Your task to perform on an android device: Go to Maps Image 0: 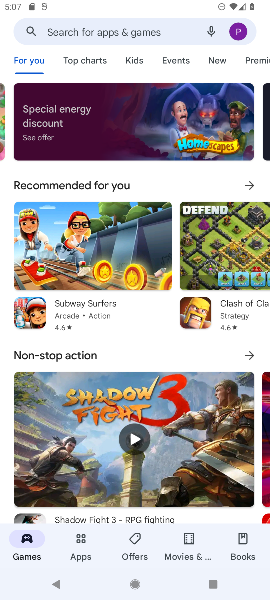
Step 0: drag from (89, 36) to (119, 39)
Your task to perform on an android device: Go to Maps Image 1: 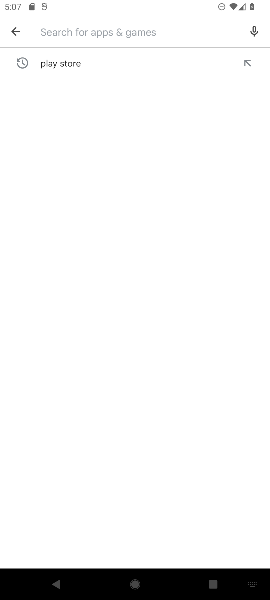
Step 1: task complete